Your task to perform on an android device: create a new album in the google photos Image 0: 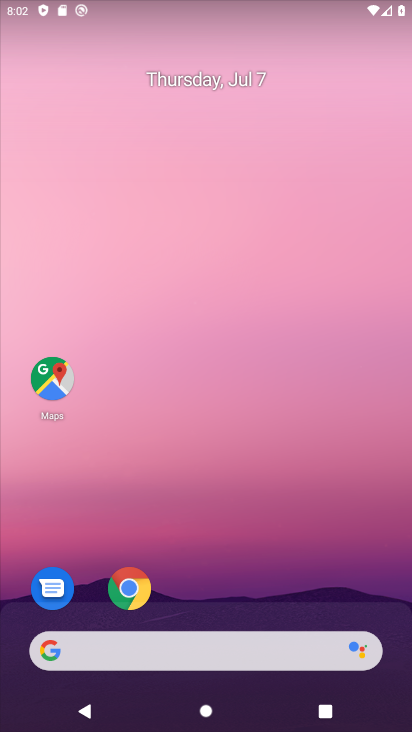
Step 0: drag from (194, 623) to (316, 79)
Your task to perform on an android device: create a new album in the google photos Image 1: 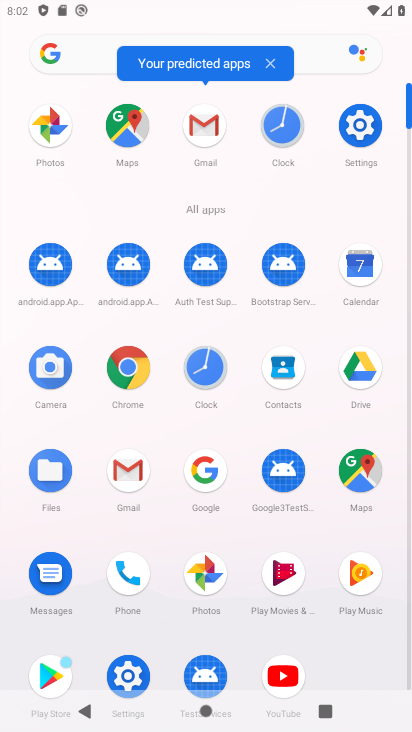
Step 1: click (205, 568)
Your task to perform on an android device: create a new album in the google photos Image 2: 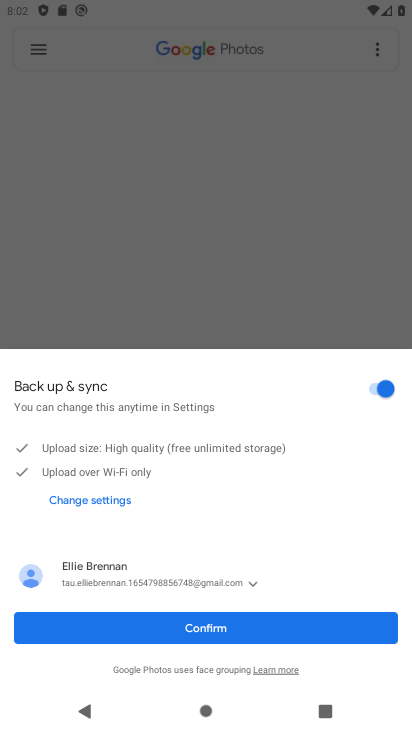
Step 2: click (223, 631)
Your task to perform on an android device: create a new album in the google photos Image 3: 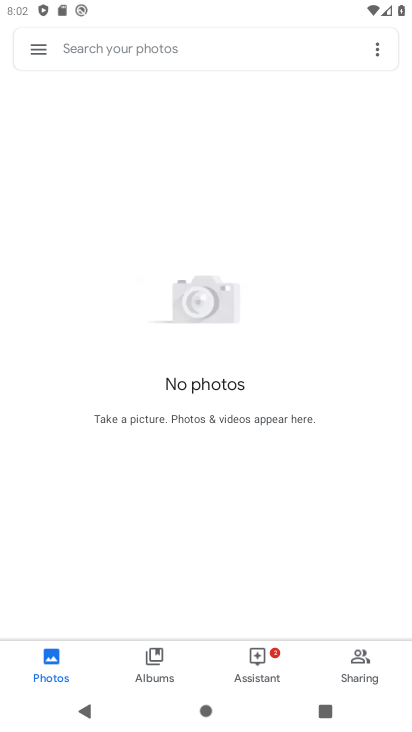
Step 3: click (149, 656)
Your task to perform on an android device: create a new album in the google photos Image 4: 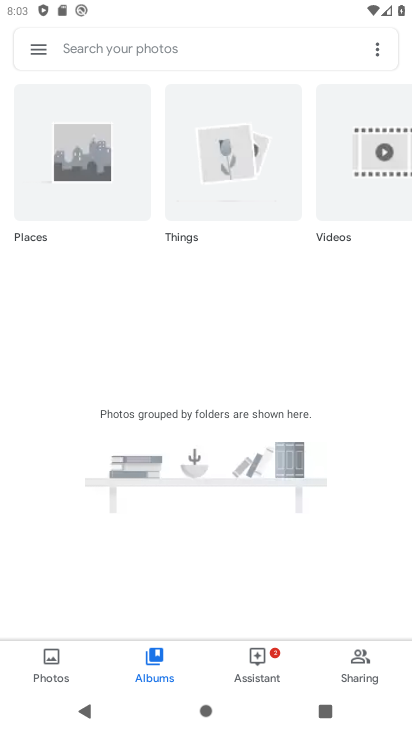
Step 4: task complete